Your task to perform on an android device: open chrome and create a bookmark for the current page Image 0: 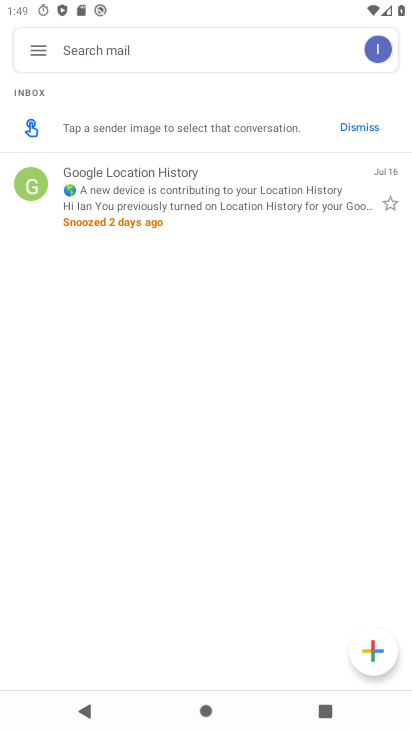
Step 0: press home button
Your task to perform on an android device: open chrome and create a bookmark for the current page Image 1: 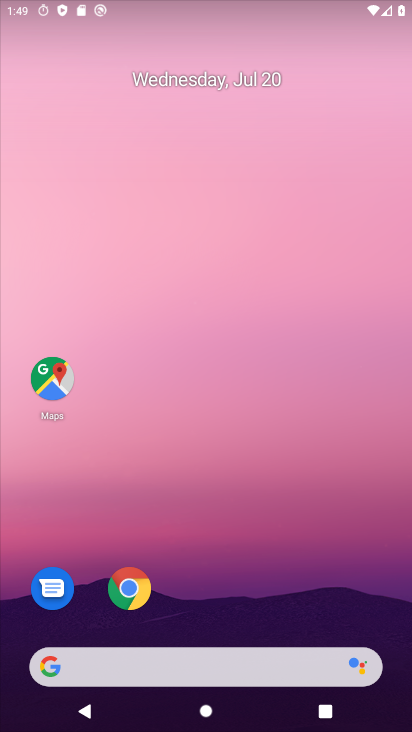
Step 1: drag from (216, 660) to (240, 3)
Your task to perform on an android device: open chrome and create a bookmark for the current page Image 2: 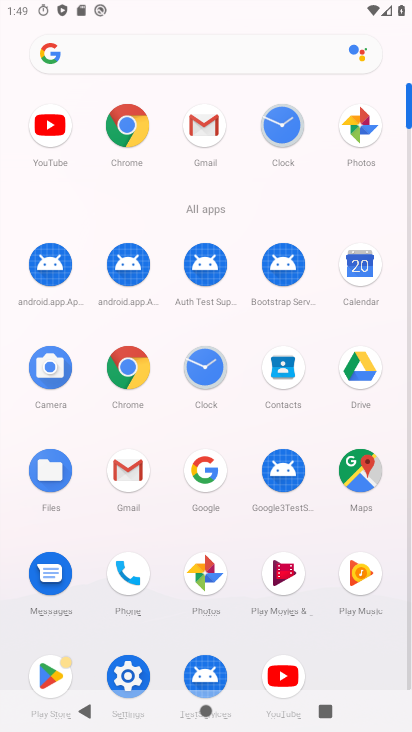
Step 2: click (125, 373)
Your task to perform on an android device: open chrome and create a bookmark for the current page Image 3: 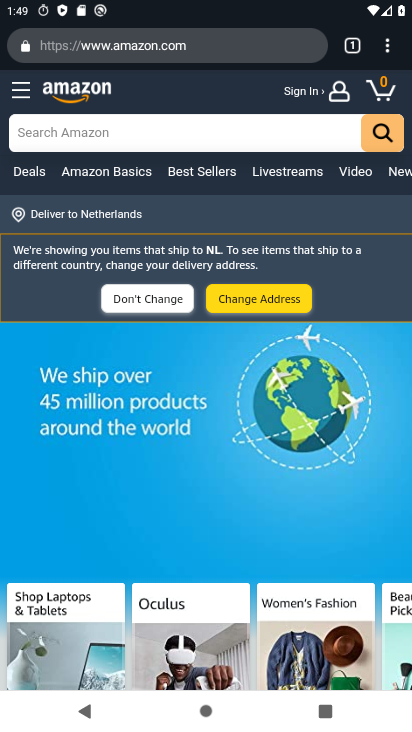
Step 3: task complete